Your task to perform on an android device: show emergency info Image 0: 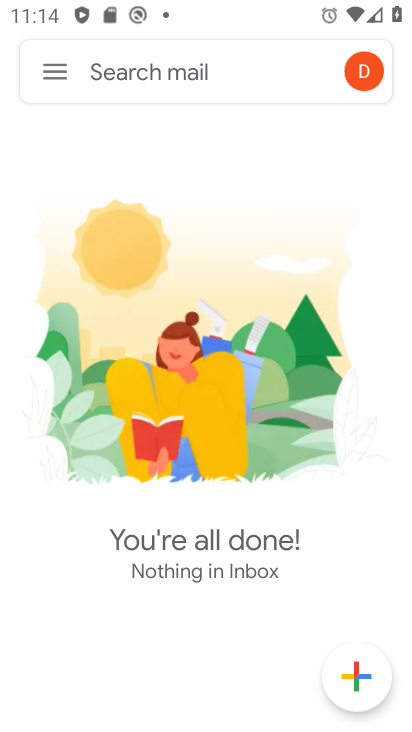
Step 0: press home button
Your task to perform on an android device: show emergency info Image 1: 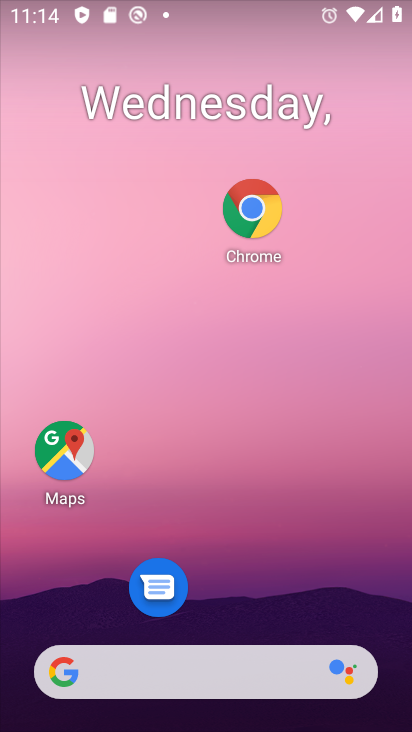
Step 1: drag from (263, 605) to (186, 7)
Your task to perform on an android device: show emergency info Image 2: 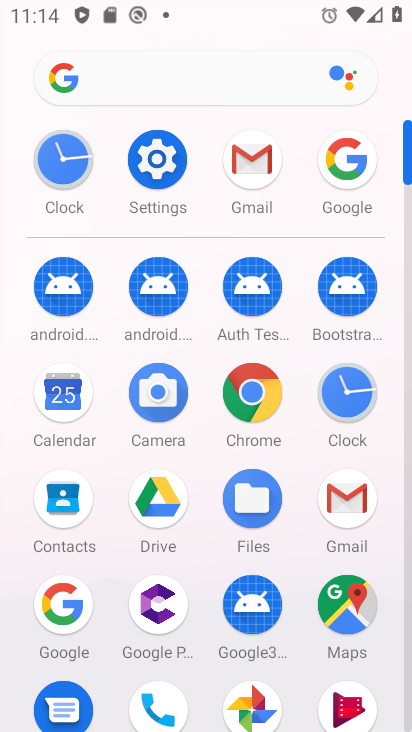
Step 2: click (171, 216)
Your task to perform on an android device: show emergency info Image 3: 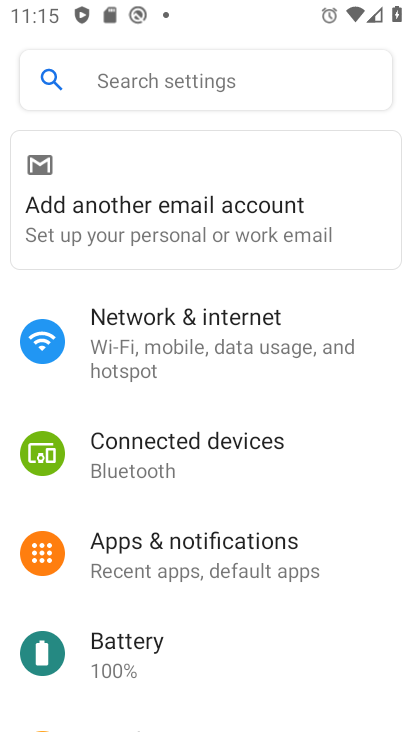
Step 3: drag from (242, 512) to (255, 131)
Your task to perform on an android device: show emergency info Image 4: 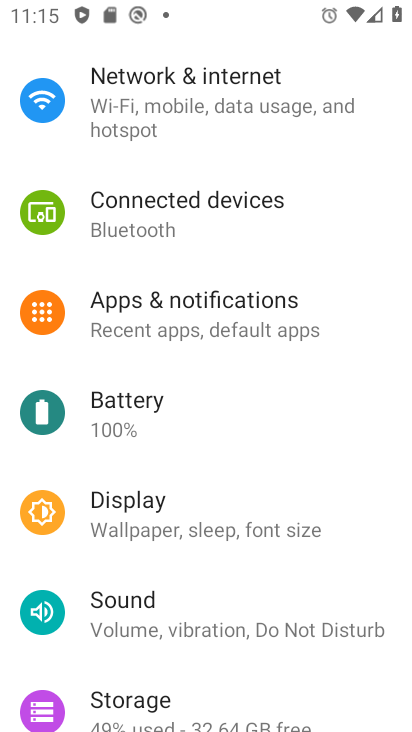
Step 4: drag from (204, 709) to (202, 222)
Your task to perform on an android device: show emergency info Image 5: 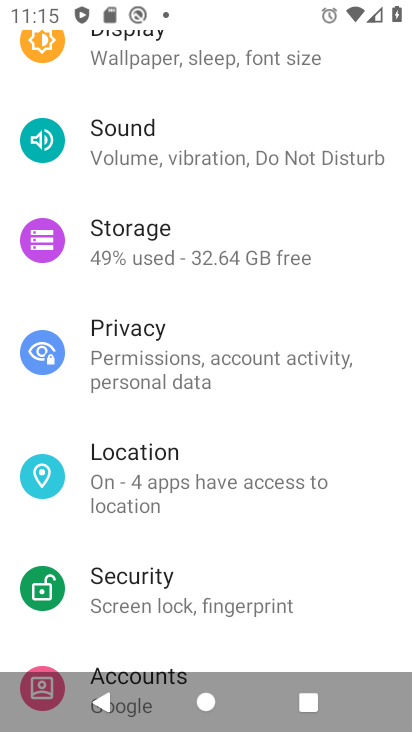
Step 5: drag from (184, 602) to (179, 81)
Your task to perform on an android device: show emergency info Image 6: 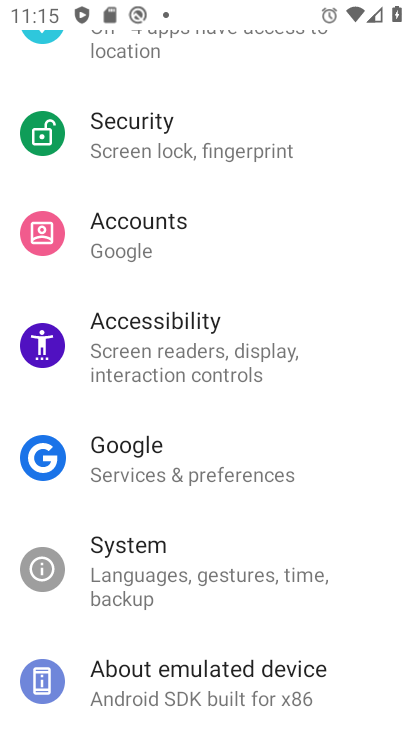
Step 6: click (165, 695)
Your task to perform on an android device: show emergency info Image 7: 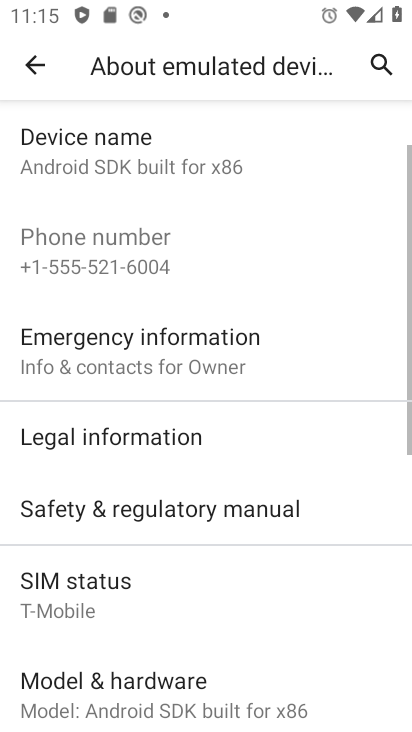
Step 7: click (133, 349)
Your task to perform on an android device: show emergency info Image 8: 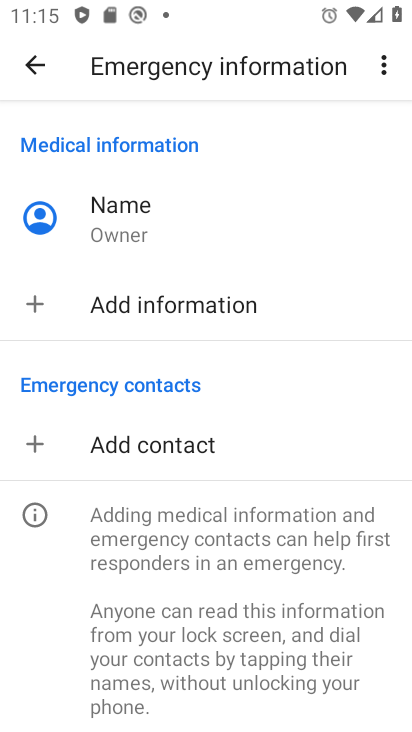
Step 8: task complete